Your task to perform on an android device: Go to Wikipedia Image 0: 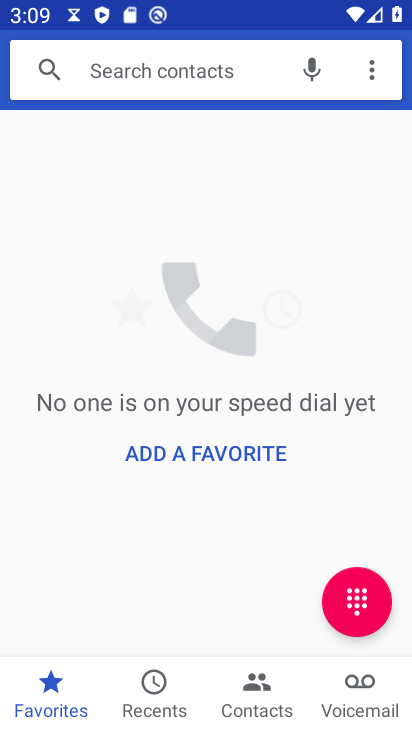
Step 0: press back button
Your task to perform on an android device: Go to Wikipedia Image 1: 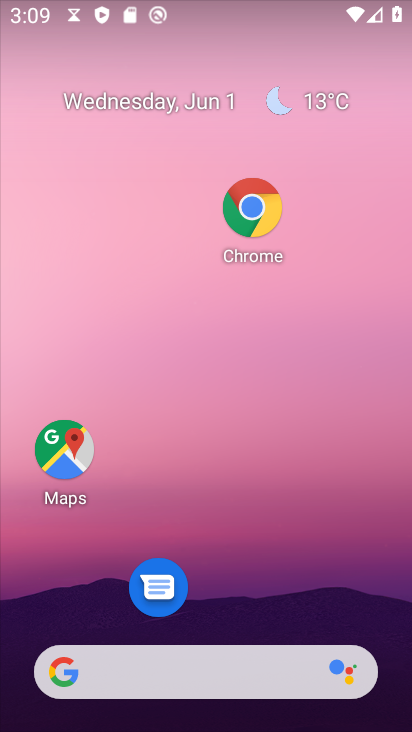
Step 1: drag from (240, 681) to (223, 50)
Your task to perform on an android device: Go to Wikipedia Image 2: 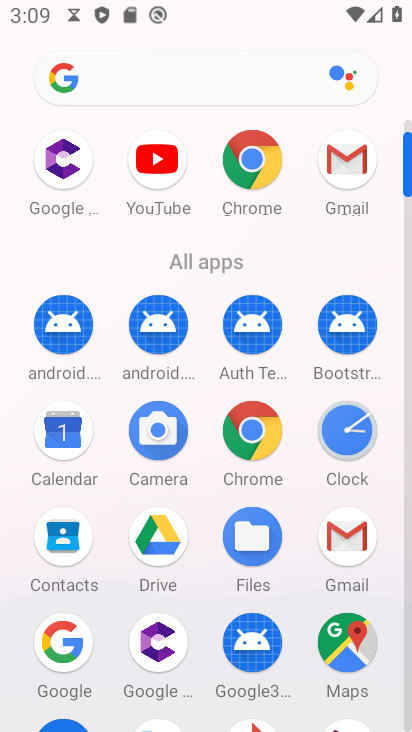
Step 2: click (241, 165)
Your task to perform on an android device: Go to Wikipedia Image 3: 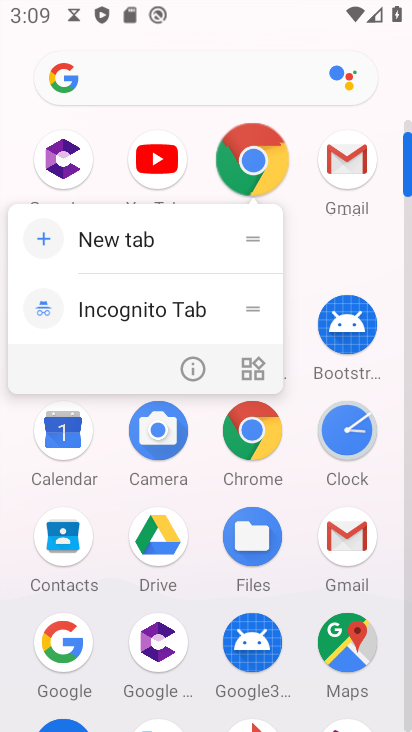
Step 3: click (241, 165)
Your task to perform on an android device: Go to Wikipedia Image 4: 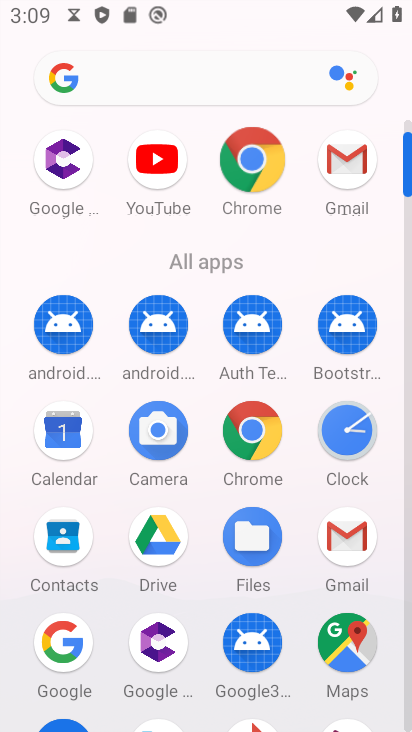
Step 4: click (239, 165)
Your task to perform on an android device: Go to Wikipedia Image 5: 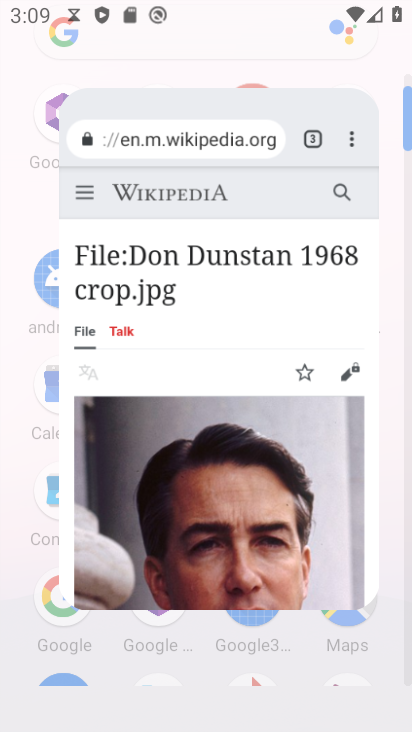
Step 5: click (238, 163)
Your task to perform on an android device: Go to Wikipedia Image 6: 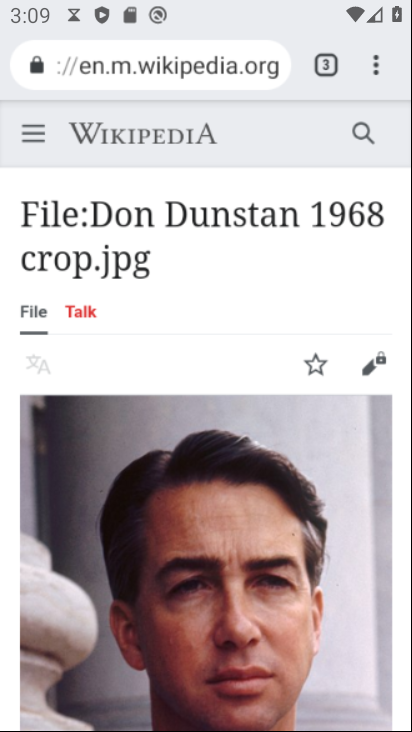
Step 6: click (237, 161)
Your task to perform on an android device: Go to Wikipedia Image 7: 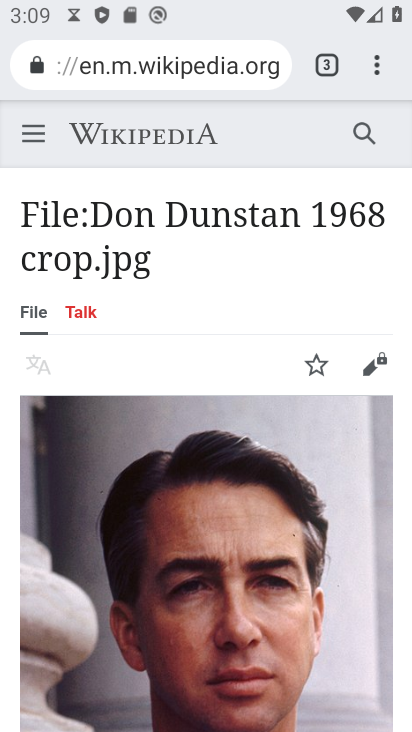
Step 7: task complete